Your task to perform on an android device: turn off javascript in the chrome app Image 0: 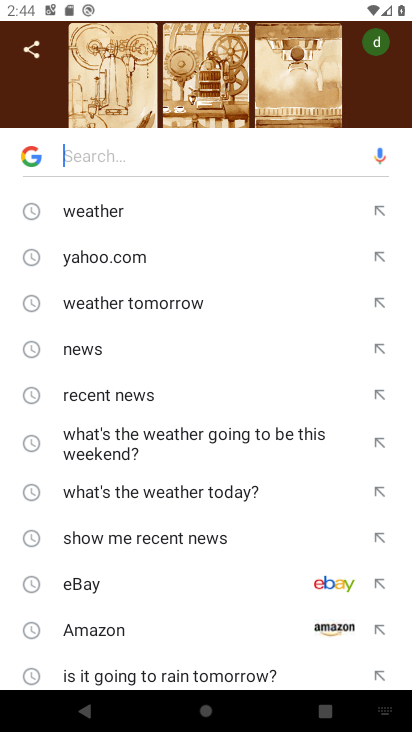
Step 0: press home button
Your task to perform on an android device: turn off javascript in the chrome app Image 1: 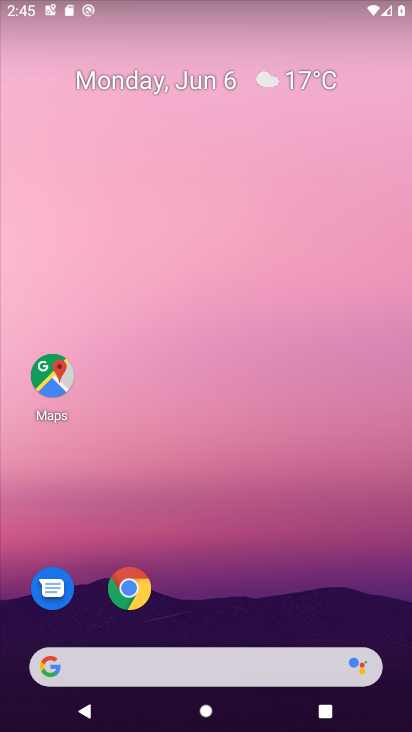
Step 1: drag from (124, 715) to (331, 0)
Your task to perform on an android device: turn off javascript in the chrome app Image 2: 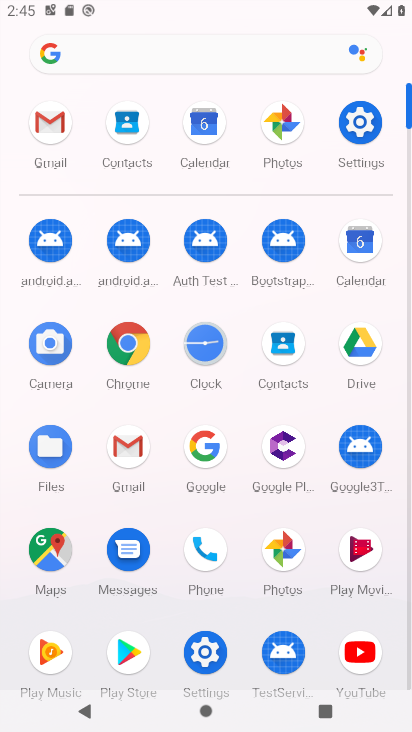
Step 2: click (122, 346)
Your task to perform on an android device: turn off javascript in the chrome app Image 3: 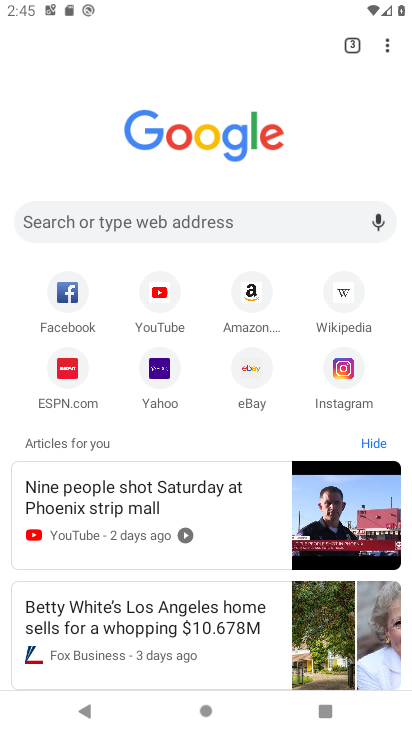
Step 3: click (385, 40)
Your task to perform on an android device: turn off javascript in the chrome app Image 4: 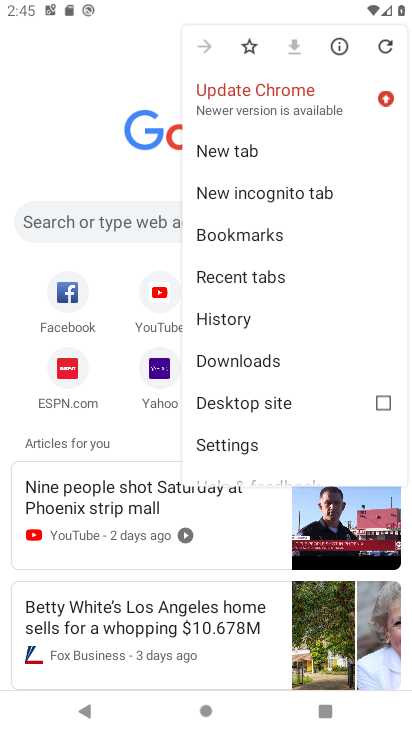
Step 4: click (277, 450)
Your task to perform on an android device: turn off javascript in the chrome app Image 5: 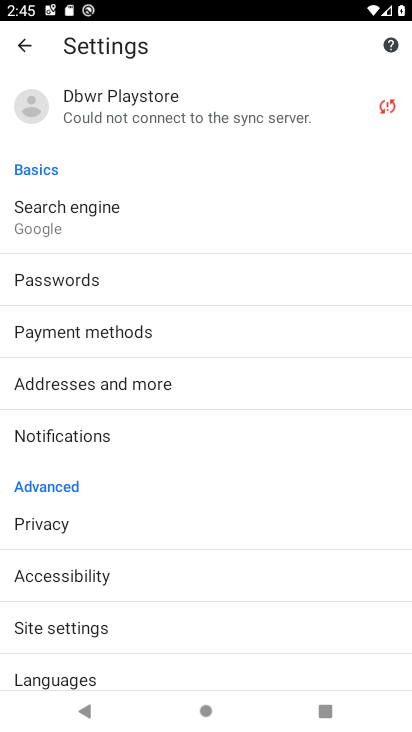
Step 5: click (73, 627)
Your task to perform on an android device: turn off javascript in the chrome app Image 6: 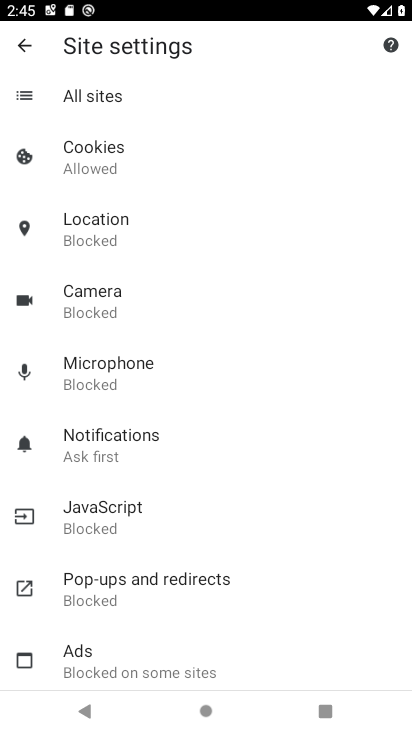
Step 6: click (143, 515)
Your task to perform on an android device: turn off javascript in the chrome app Image 7: 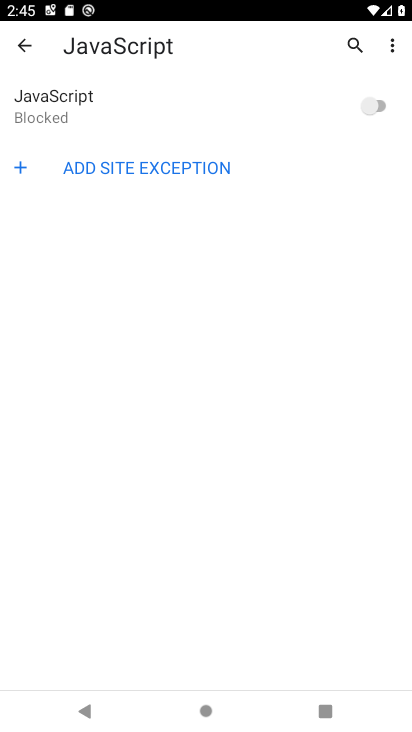
Step 7: task complete